Your task to perform on an android device: check data usage Image 0: 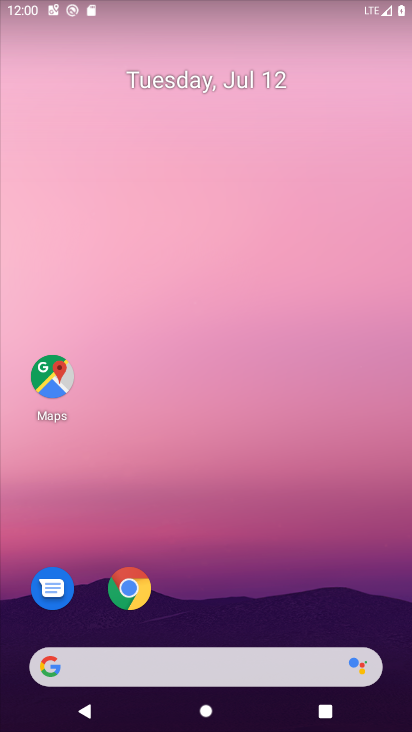
Step 0: drag from (275, 622) to (150, 54)
Your task to perform on an android device: check data usage Image 1: 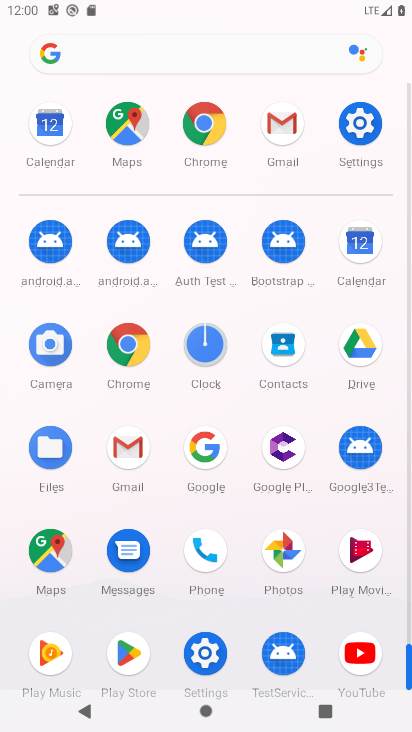
Step 1: click (207, 649)
Your task to perform on an android device: check data usage Image 2: 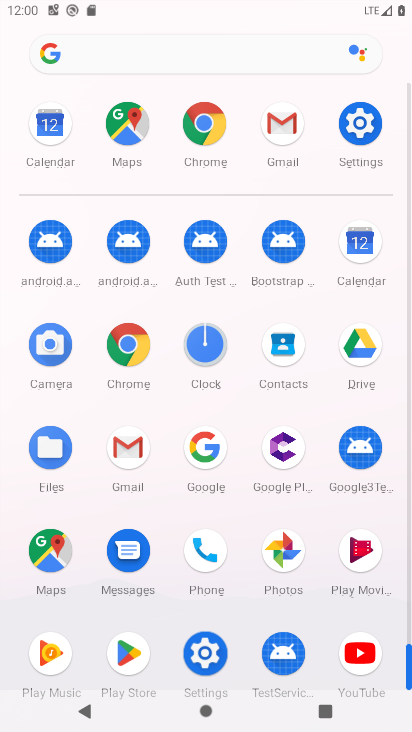
Step 2: click (209, 652)
Your task to perform on an android device: check data usage Image 3: 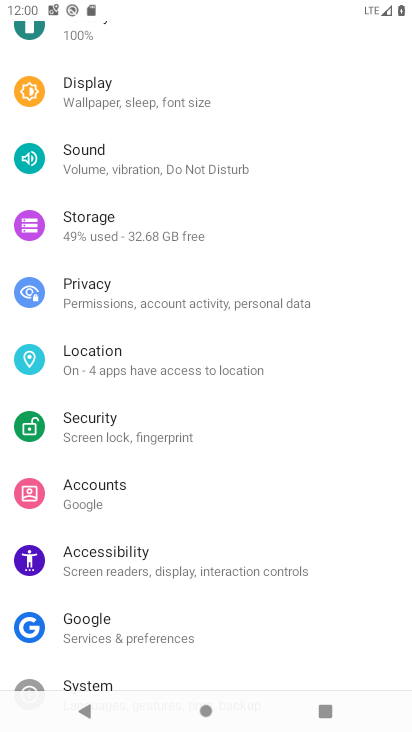
Step 3: drag from (119, 143) to (122, 684)
Your task to perform on an android device: check data usage Image 4: 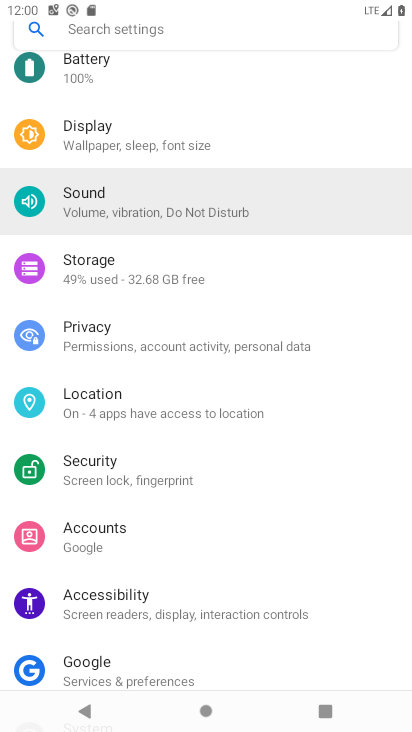
Step 4: drag from (104, 204) to (138, 478)
Your task to perform on an android device: check data usage Image 5: 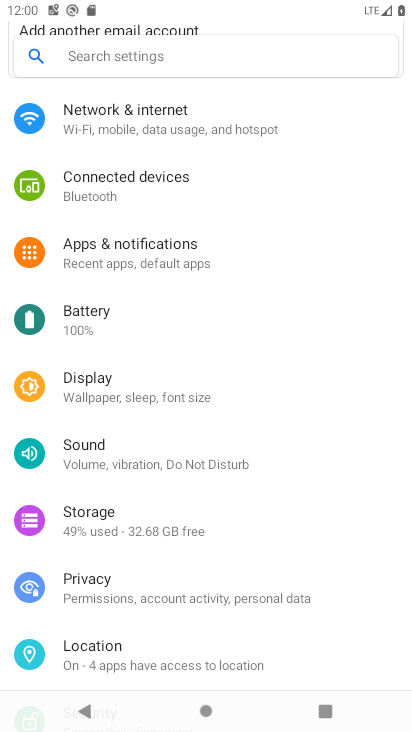
Step 5: drag from (125, 117) to (170, 612)
Your task to perform on an android device: check data usage Image 6: 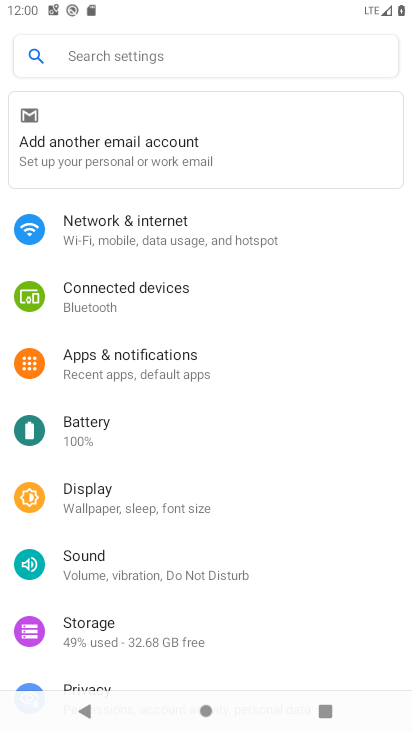
Step 6: drag from (115, 543) to (146, 293)
Your task to perform on an android device: check data usage Image 7: 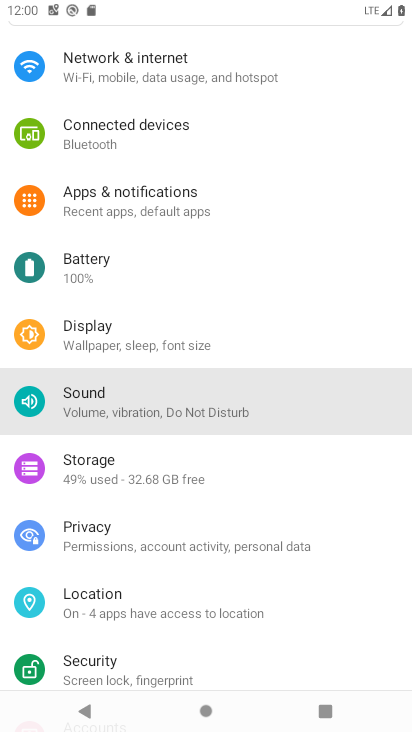
Step 7: drag from (193, 574) to (193, 271)
Your task to perform on an android device: check data usage Image 8: 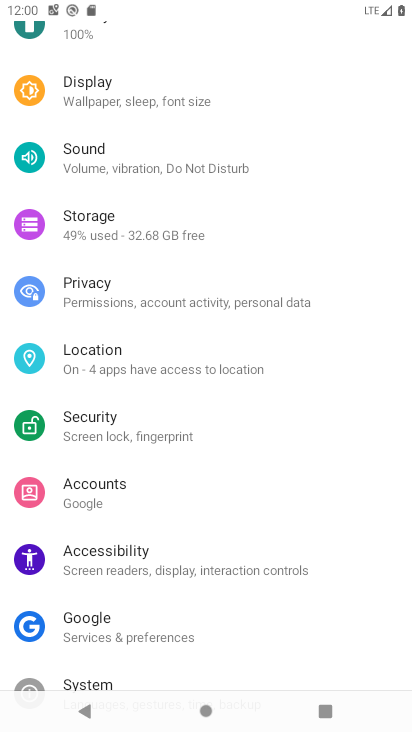
Step 8: drag from (197, 474) to (158, 197)
Your task to perform on an android device: check data usage Image 9: 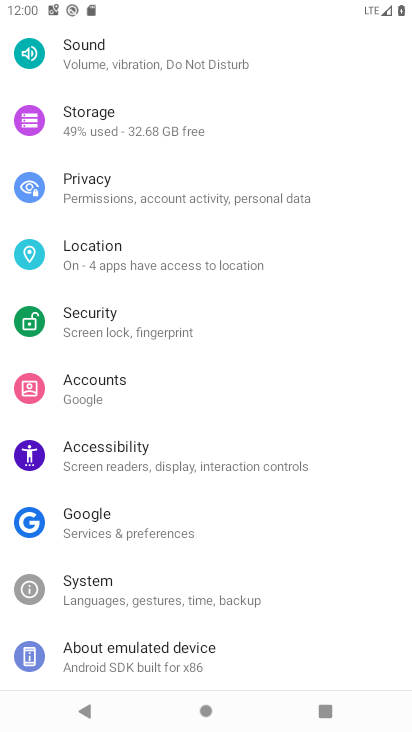
Step 9: drag from (100, 126) to (156, 480)
Your task to perform on an android device: check data usage Image 10: 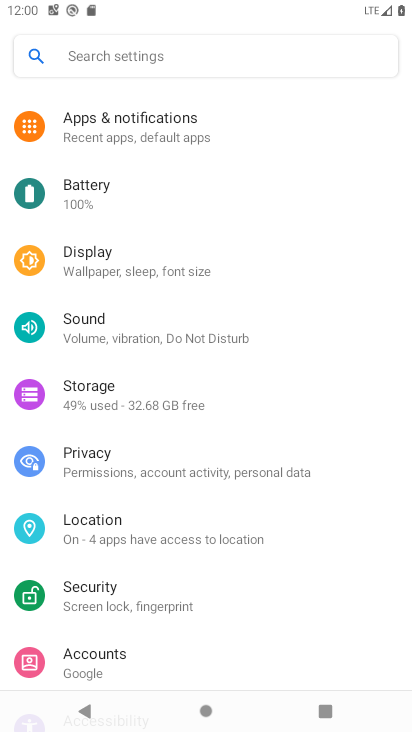
Step 10: drag from (86, 201) to (109, 498)
Your task to perform on an android device: check data usage Image 11: 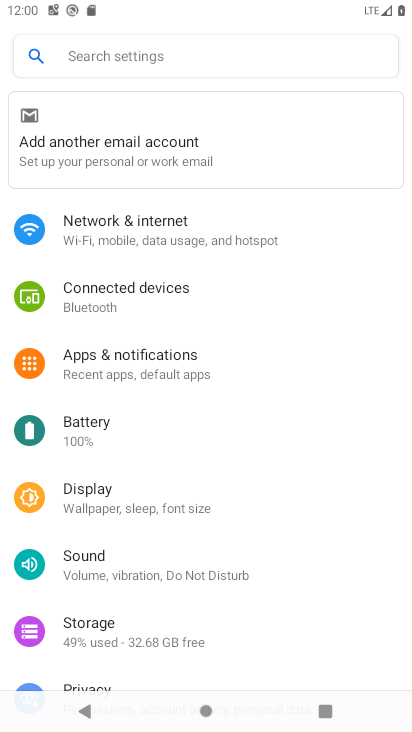
Step 11: drag from (97, 254) to (168, 674)
Your task to perform on an android device: check data usage Image 12: 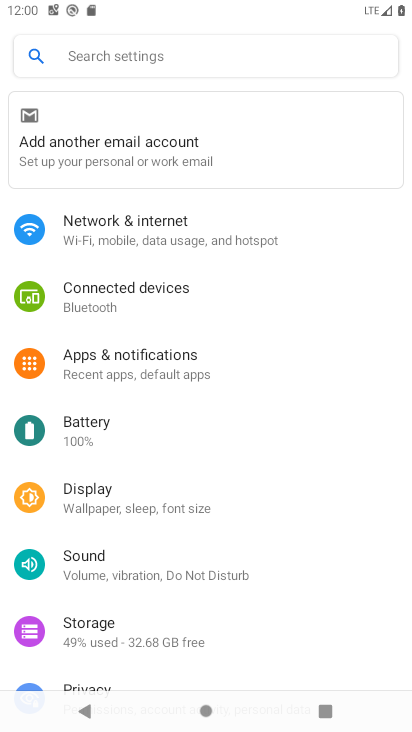
Step 12: click (139, 217)
Your task to perform on an android device: check data usage Image 13: 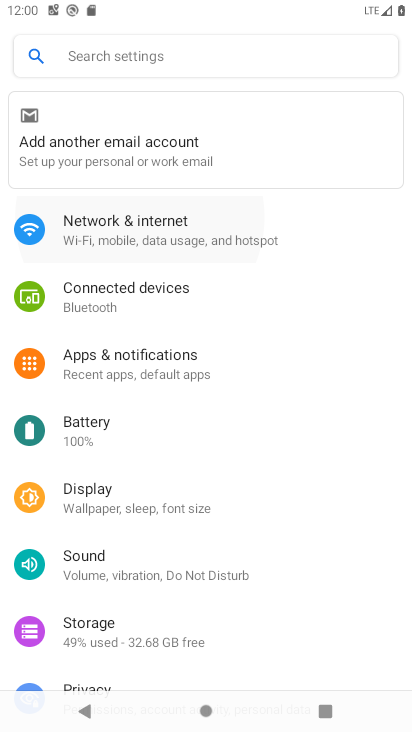
Step 13: click (149, 233)
Your task to perform on an android device: check data usage Image 14: 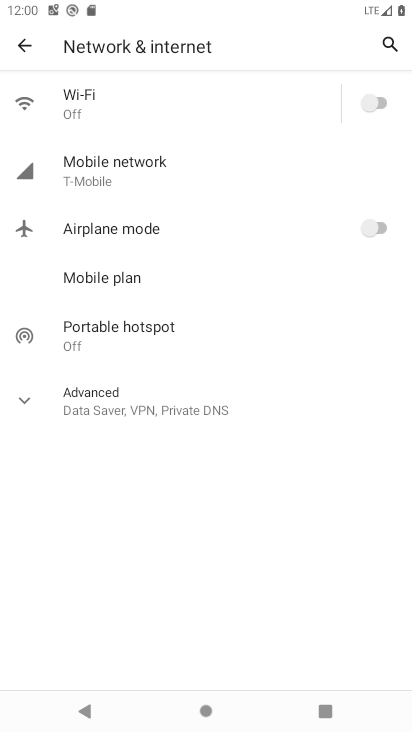
Step 14: click (83, 172)
Your task to perform on an android device: check data usage Image 15: 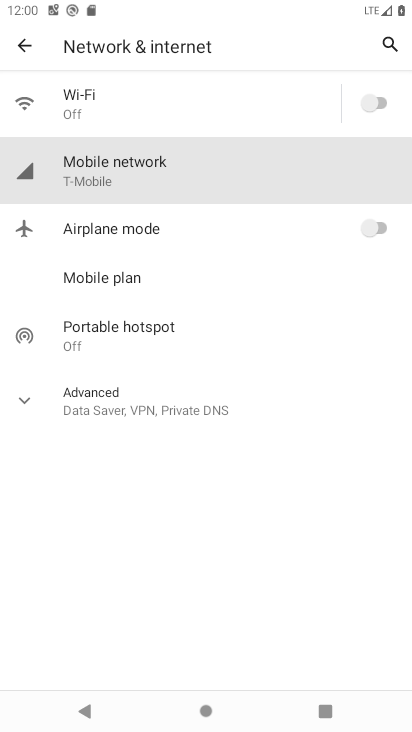
Step 15: click (83, 172)
Your task to perform on an android device: check data usage Image 16: 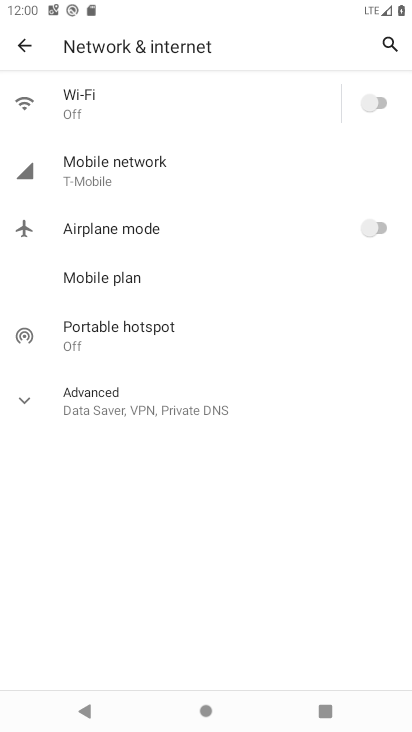
Step 16: click (86, 171)
Your task to perform on an android device: check data usage Image 17: 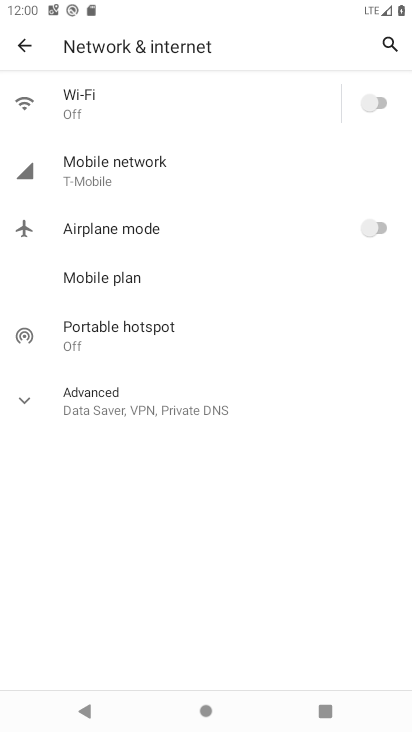
Step 17: click (86, 171)
Your task to perform on an android device: check data usage Image 18: 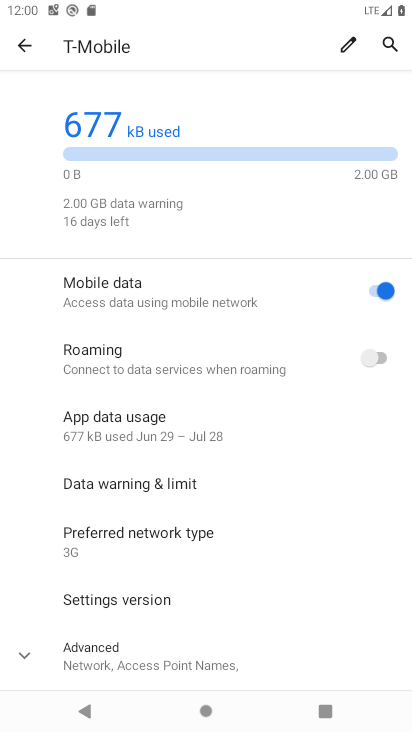
Step 18: task complete